Your task to perform on an android device: Open calendar and show me the second week of next month Image 0: 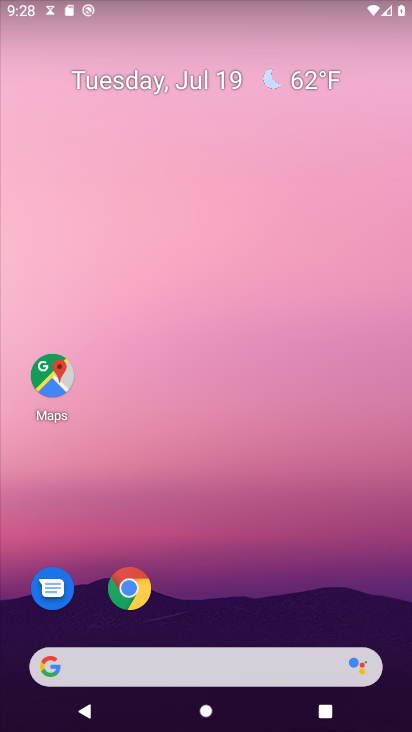
Step 0: drag from (200, 594) to (177, 148)
Your task to perform on an android device: Open calendar and show me the second week of next month Image 1: 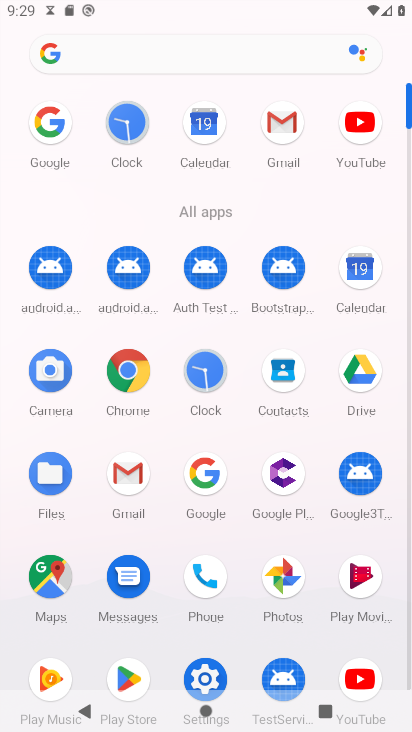
Step 1: click (366, 288)
Your task to perform on an android device: Open calendar and show me the second week of next month Image 2: 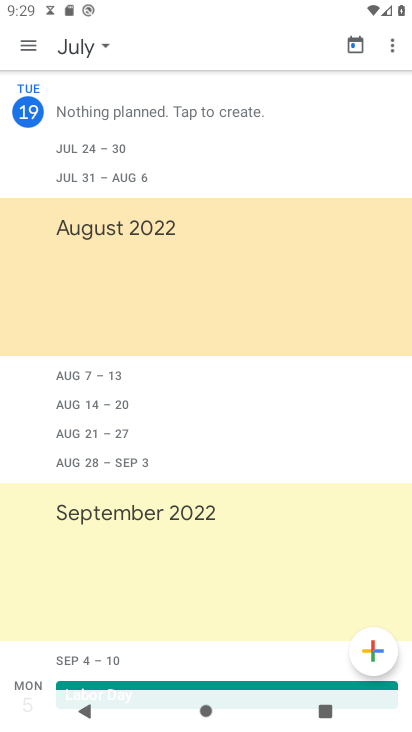
Step 2: click (85, 56)
Your task to perform on an android device: Open calendar and show me the second week of next month Image 3: 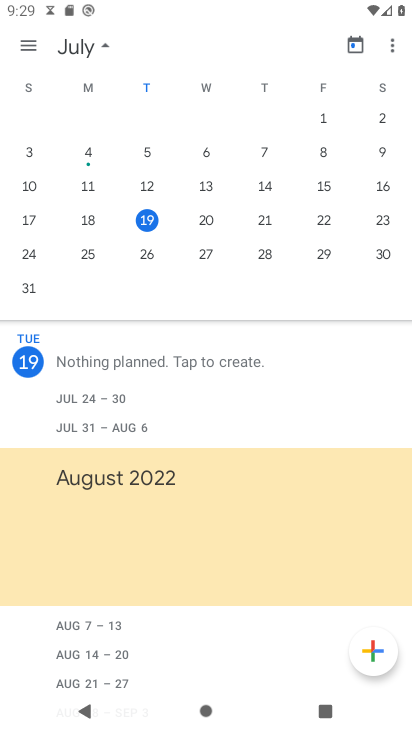
Step 3: drag from (162, 201) to (126, 180)
Your task to perform on an android device: Open calendar and show me the second week of next month Image 4: 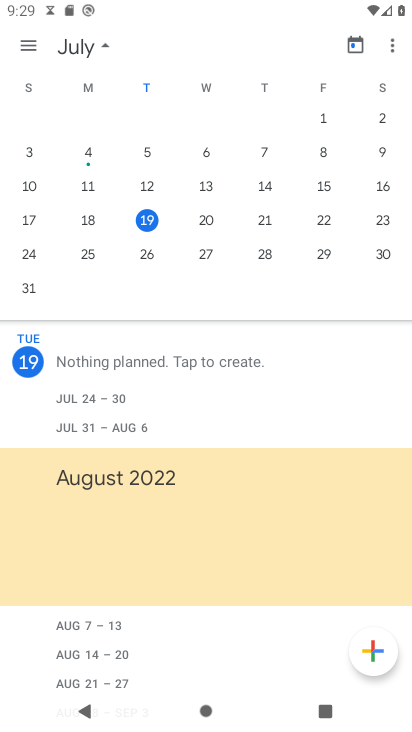
Step 4: drag from (123, 172) to (42, 172)
Your task to perform on an android device: Open calendar and show me the second week of next month Image 5: 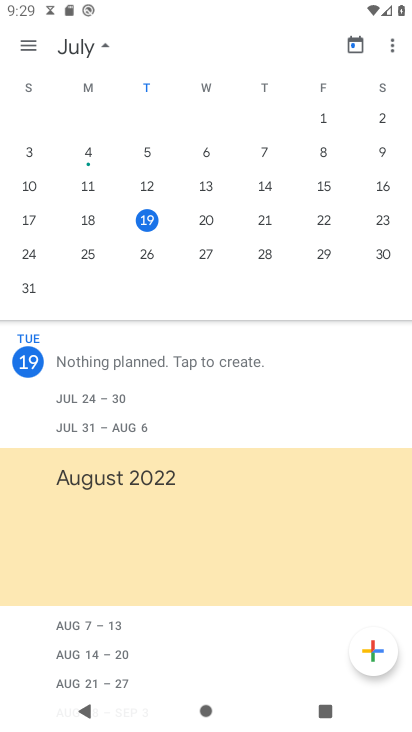
Step 5: drag from (335, 203) to (38, 203)
Your task to perform on an android device: Open calendar and show me the second week of next month Image 6: 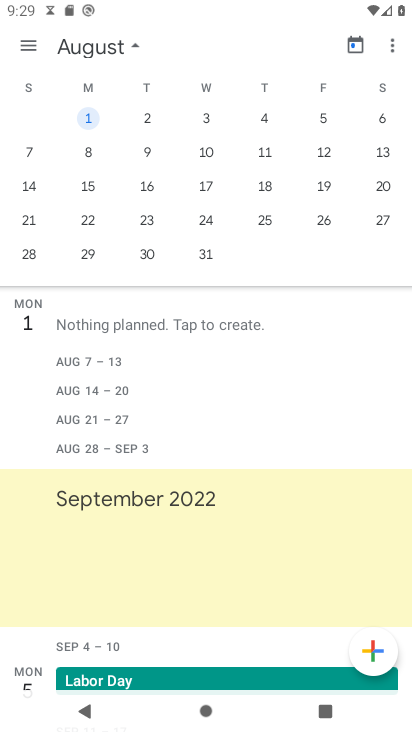
Step 6: click (30, 153)
Your task to perform on an android device: Open calendar and show me the second week of next month Image 7: 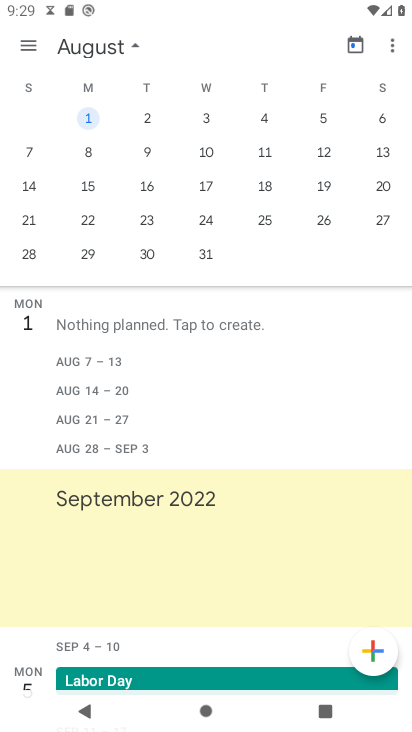
Step 7: click (30, 153)
Your task to perform on an android device: Open calendar and show me the second week of next month Image 8: 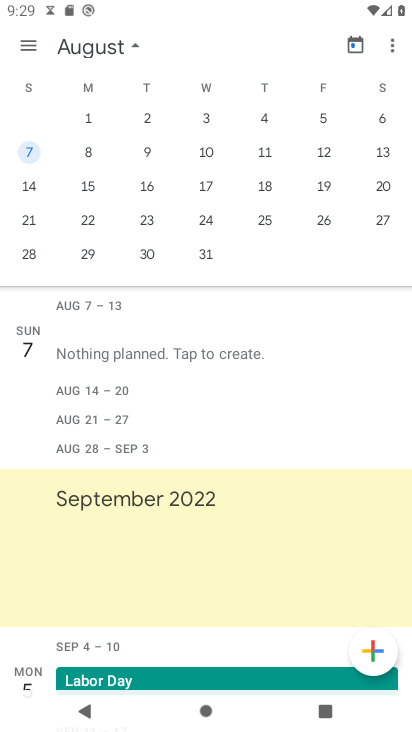
Step 8: click (25, 47)
Your task to perform on an android device: Open calendar and show me the second week of next month Image 9: 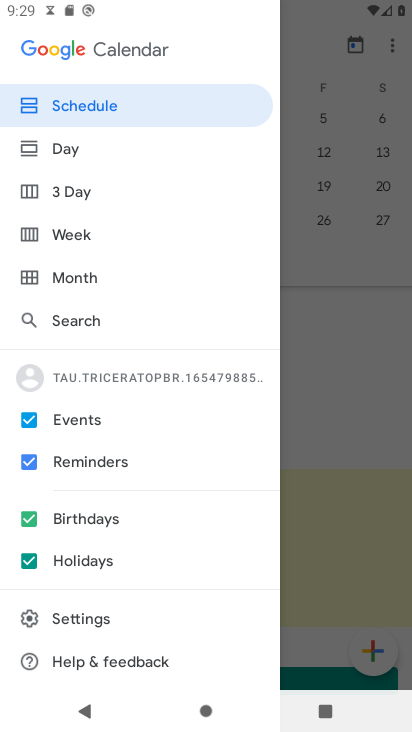
Step 9: click (81, 238)
Your task to perform on an android device: Open calendar and show me the second week of next month Image 10: 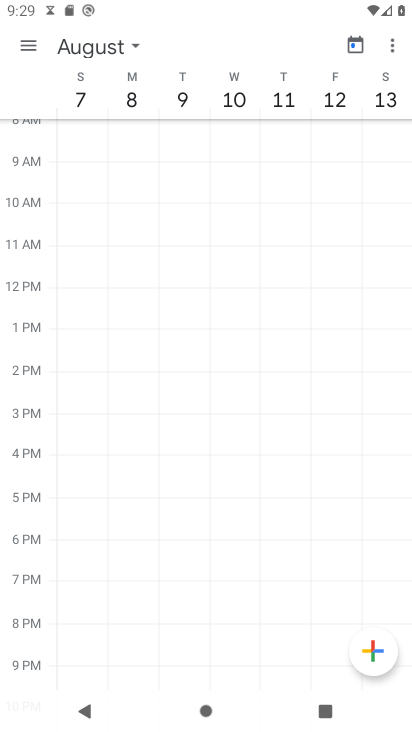
Step 10: task complete